Your task to perform on an android device: turn off improve location accuracy Image 0: 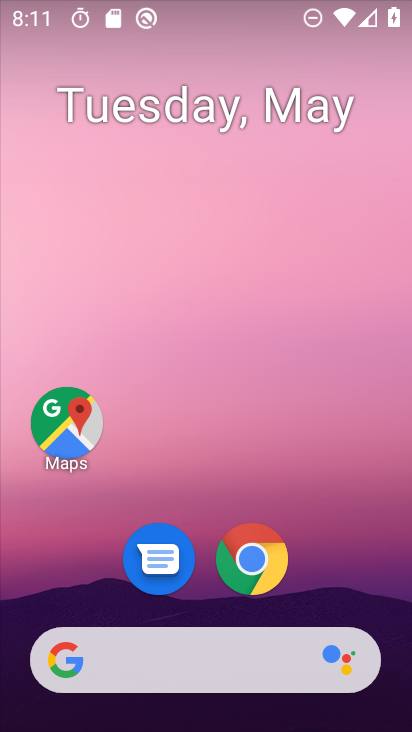
Step 0: drag from (400, 607) to (256, 86)
Your task to perform on an android device: turn off improve location accuracy Image 1: 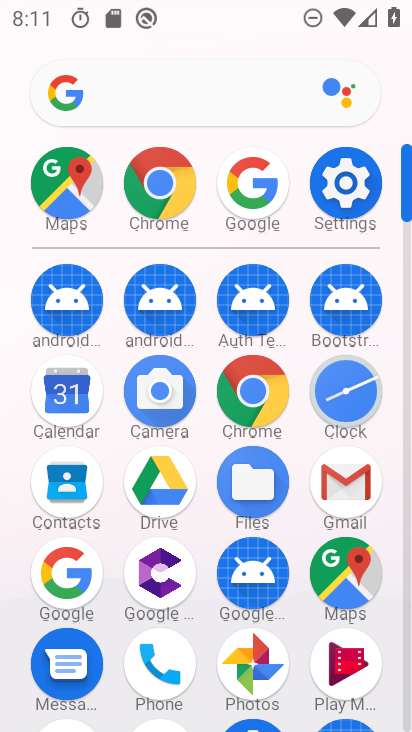
Step 1: click (326, 191)
Your task to perform on an android device: turn off improve location accuracy Image 2: 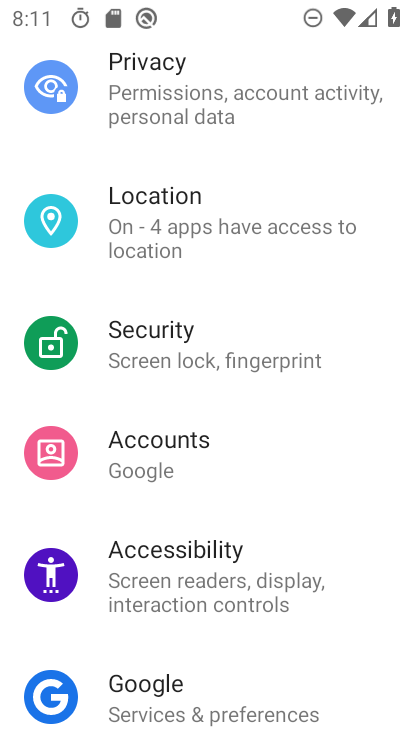
Step 2: click (244, 227)
Your task to perform on an android device: turn off improve location accuracy Image 3: 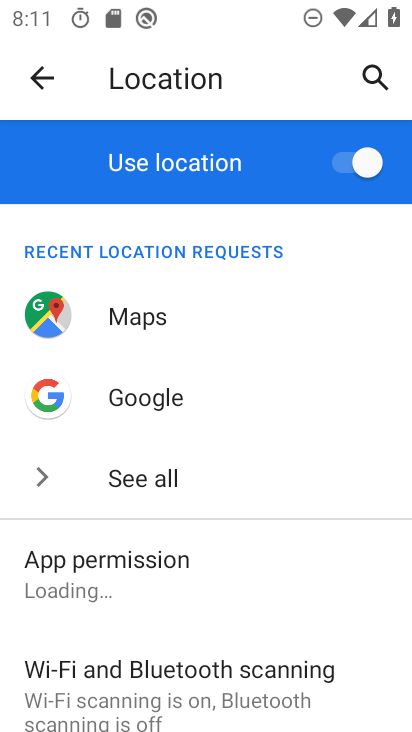
Step 3: drag from (208, 675) to (223, 317)
Your task to perform on an android device: turn off improve location accuracy Image 4: 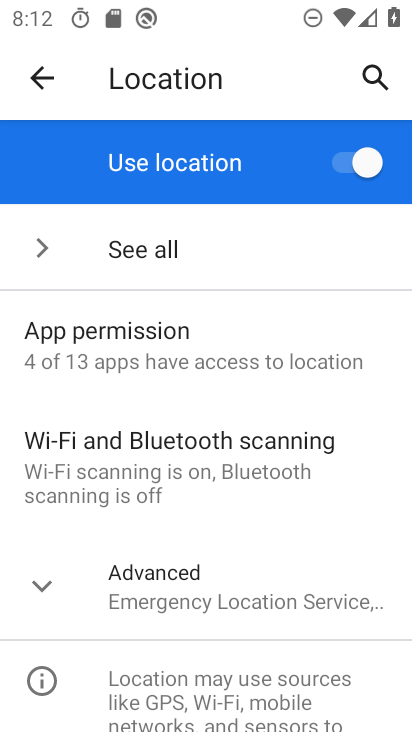
Step 4: click (123, 588)
Your task to perform on an android device: turn off improve location accuracy Image 5: 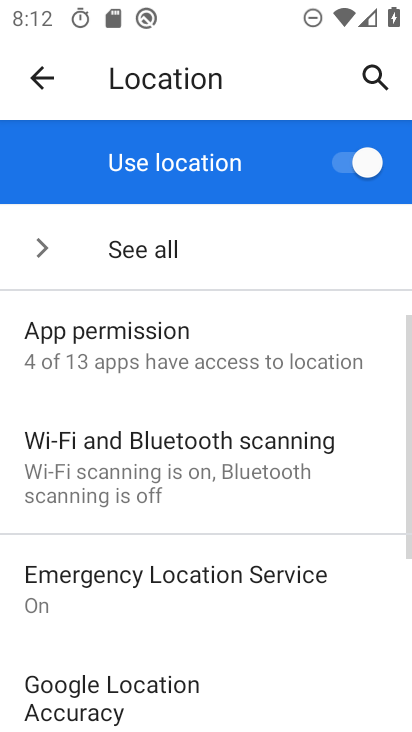
Step 5: click (170, 701)
Your task to perform on an android device: turn off improve location accuracy Image 6: 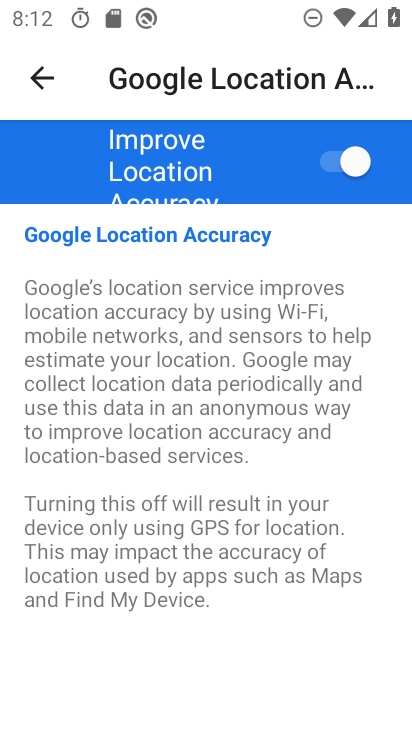
Step 6: click (376, 173)
Your task to perform on an android device: turn off improve location accuracy Image 7: 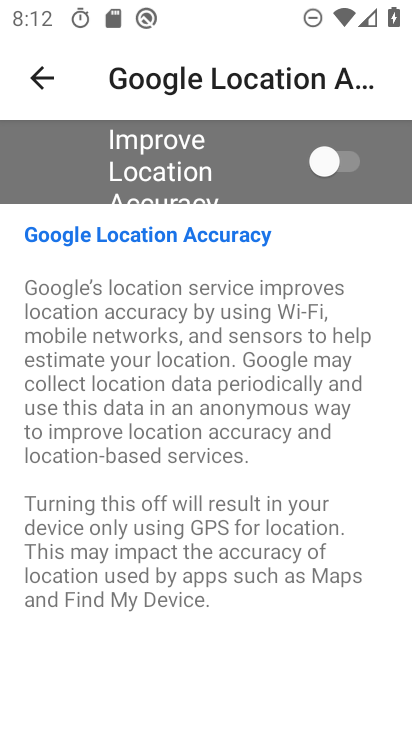
Step 7: task complete